Your task to perform on an android device: Turn off the flashlight Image 0: 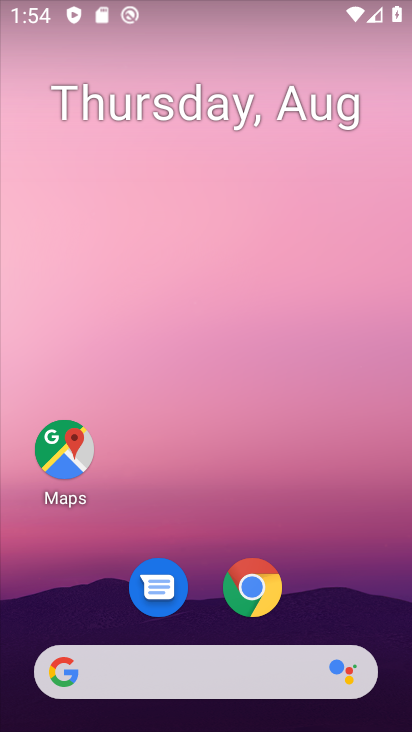
Step 0: drag from (183, 520) to (201, 61)
Your task to perform on an android device: Turn off the flashlight Image 1: 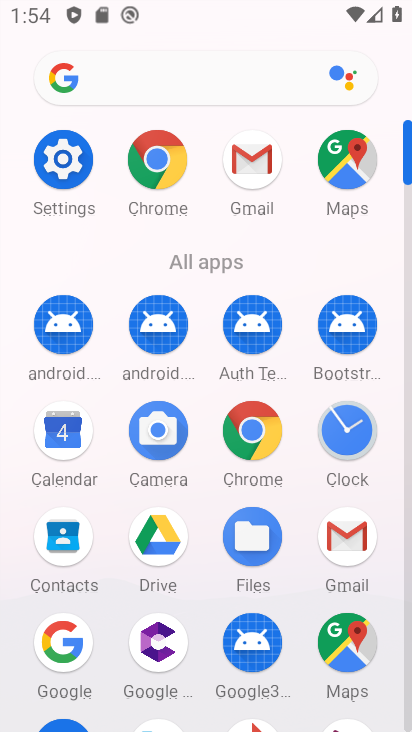
Step 1: click (63, 155)
Your task to perform on an android device: Turn off the flashlight Image 2: 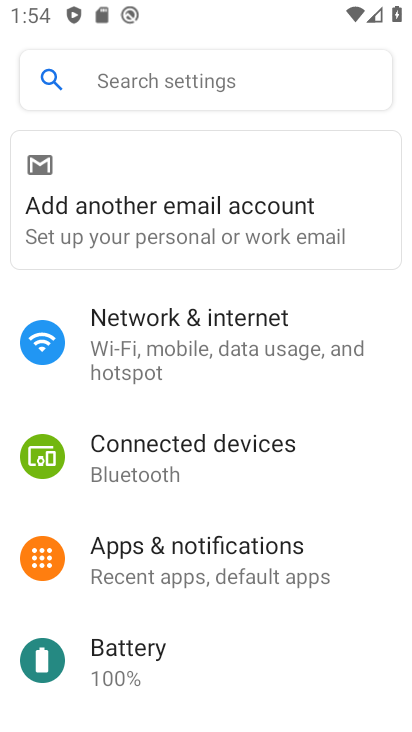
Step 2: drag from (235, 618) to (204, 221)
Your task to perform on an android device: Turn off the flashlight Image 3: 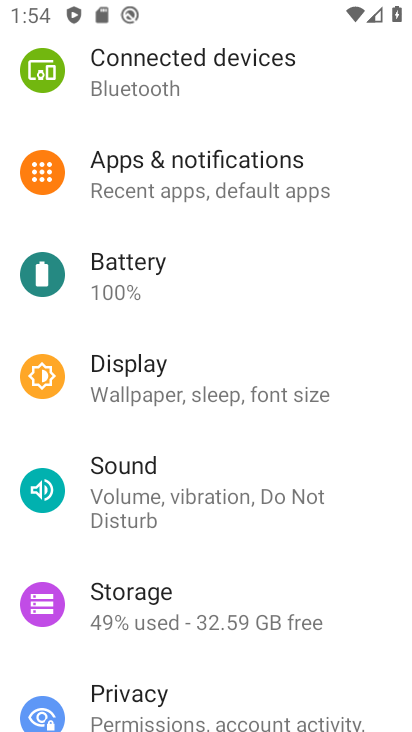
Step 3: click (132, 370)
Your task to perform on an android device: Turn off the flashlight Image 4: 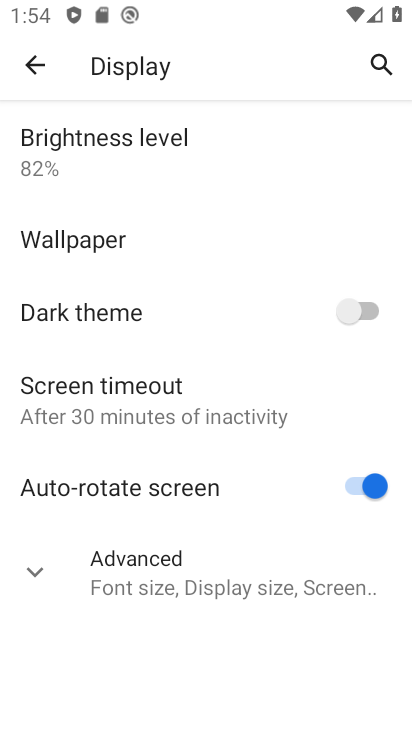
Step 4: task complete